Your task to perform on an android device: change the clock style Image 0: 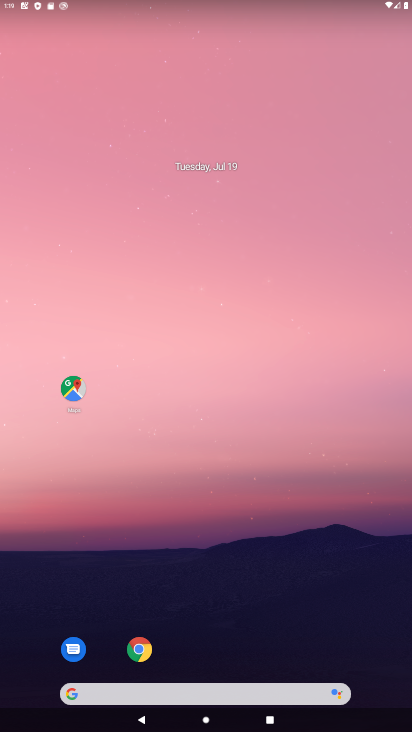
Step 0: drag from (244, 630) to (235, 268)
Your task to perform on an android device: change the clock style Image 1: 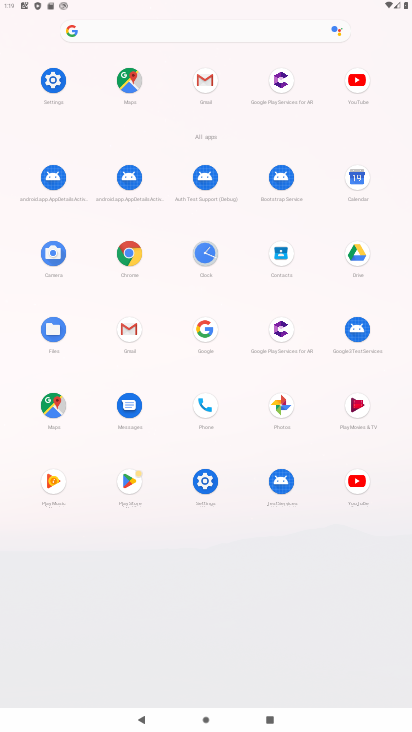
Step 1: click (202, 253)
Your task to perform on an android device: change the clock style Image 2: 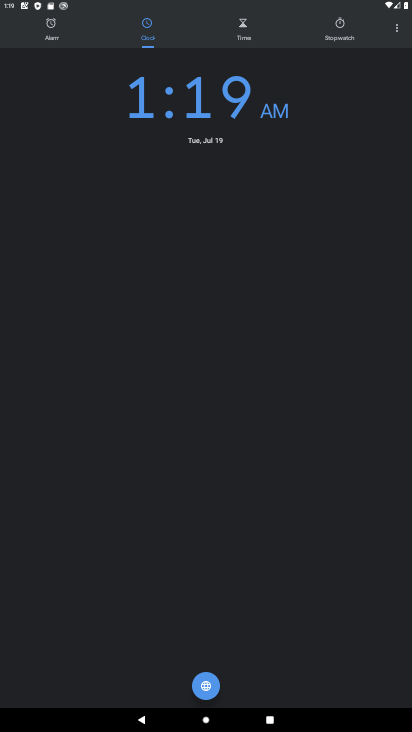
Step 2: click (399, 31)
Your task to perform on an android device: change the clock style Image 3: 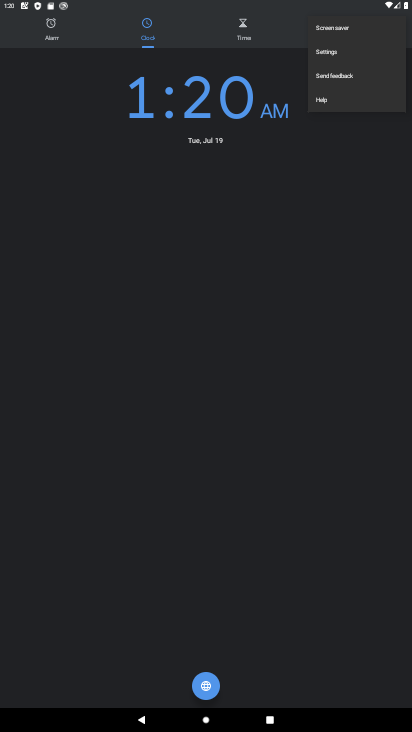
Step 3: click (341, 52)
Your task to perform on an android device: change the clock style Image 4: 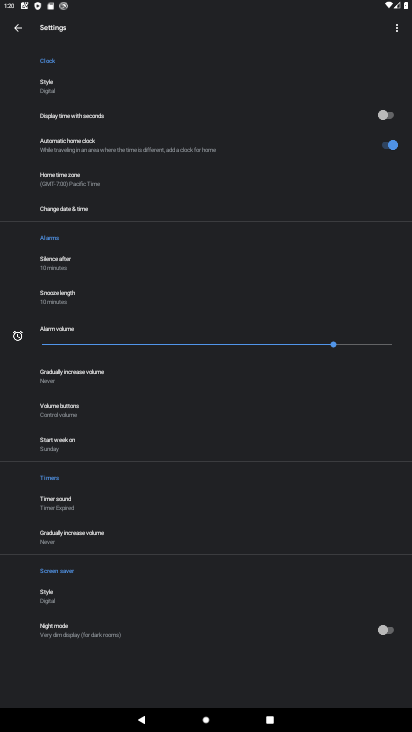
Step 4: click (65, 90)
Your task to perform on an android device: change the clock style Image 5: 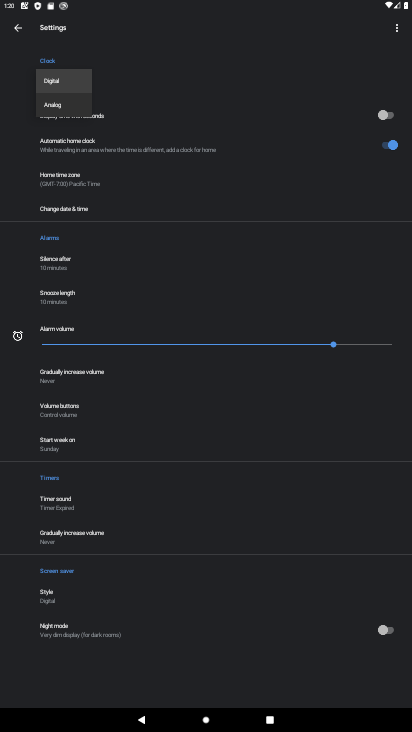
Step 5: click (64, 110)
Your task to perform on an android device: change the clock style Image 6: 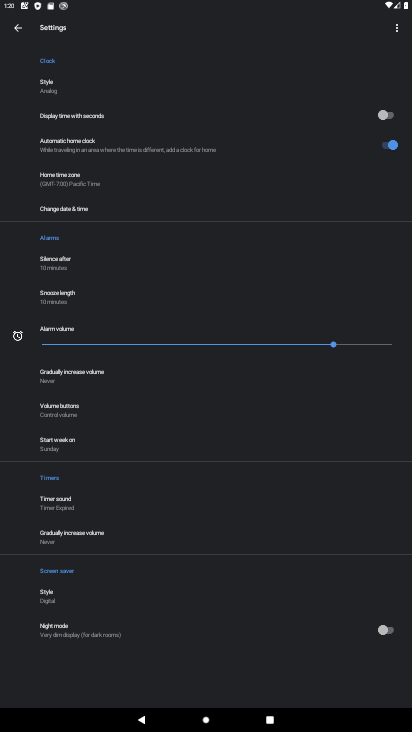
Step 6: task complete